Your task to perform on an android device: turn off sleep mode Image 0: 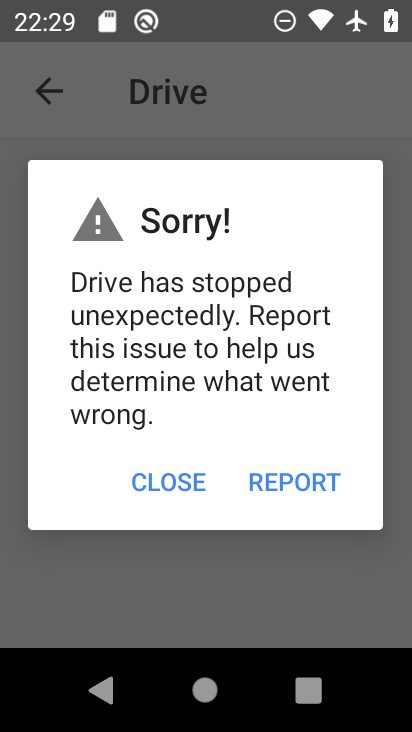
Step 0: press home button
Your task to perform on an android device: turn off sleep mode Image 1: 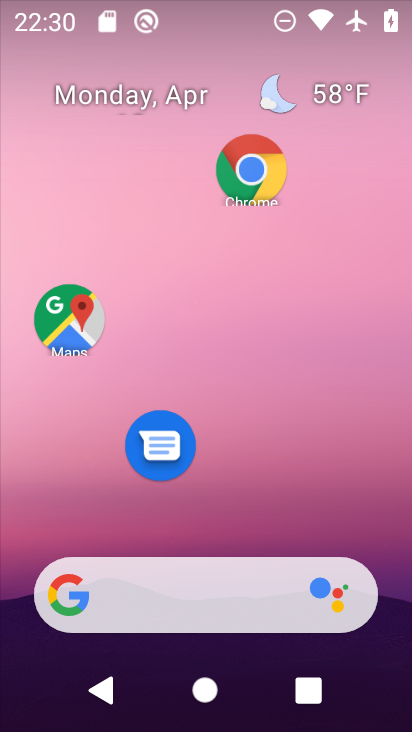
Step 1: drag from (207, 503) to (224, 157)
Your task to perform on an android device: turn off sleep mode Image 2: 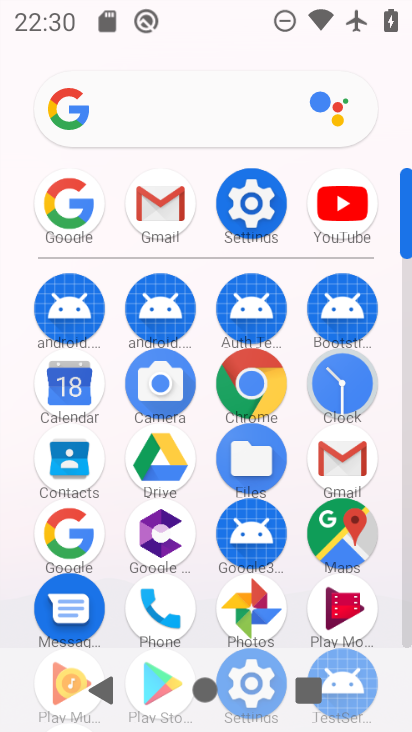
Step 2: click (236, 195)
Your task to perform on an android device: turn off sleep mode Image 3: 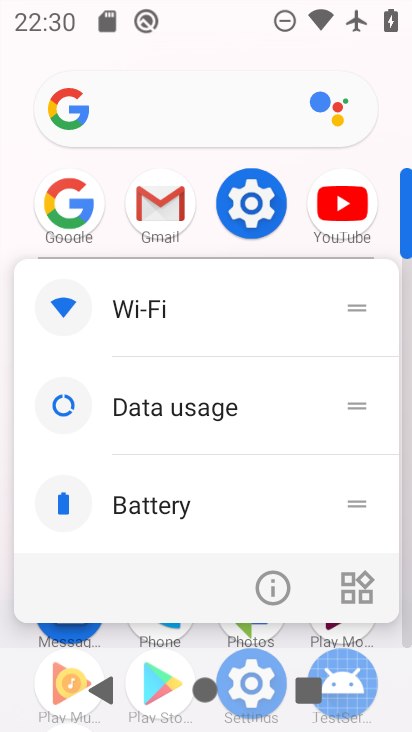
Step 3: click (236, 195)
Your task to perform on an android device: turn off sleep mode Image 4: 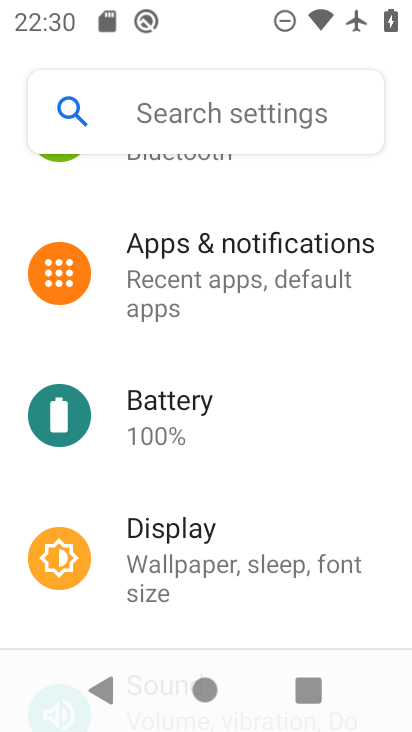
Step 4: click (228, 523)
Your task to perform on an android device: turn off sleep mode Image 5: 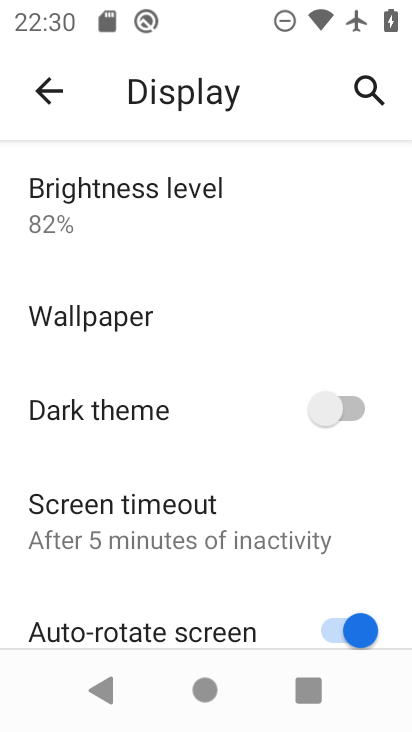
Step 5: drag from (174, 364) to (194, 309)
Your task to perform on an android device: turn off sleep mode Image 6: 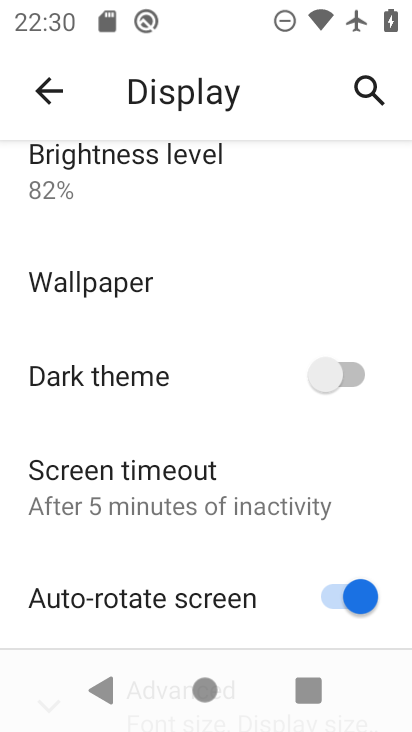
Step 6: click (169, 461)
Your task to perform on an android device: turn off sleep mode Image 7: 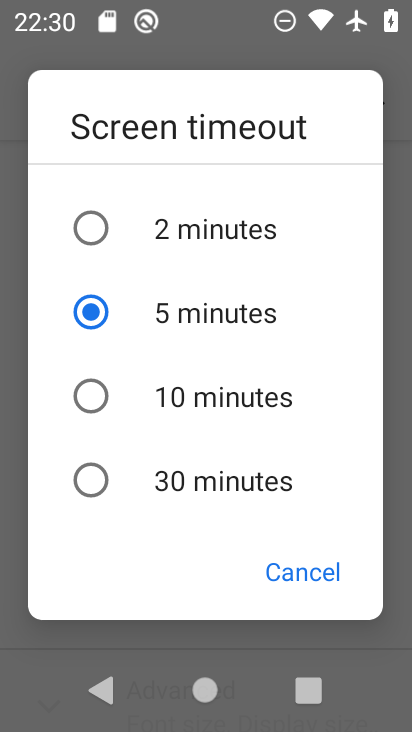
Step 7: click (172, 461)
Your task to perform on an android device: turn off sleep mode Image 8: 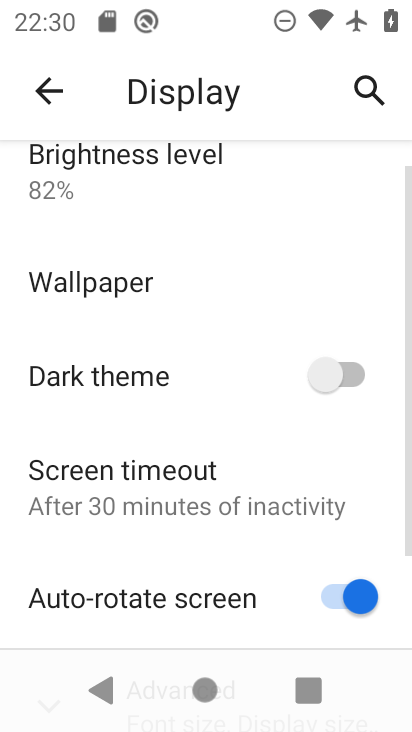
Step 8: task complete